Your task to perform on an android device: Do I have any events this weekend? Image 0: 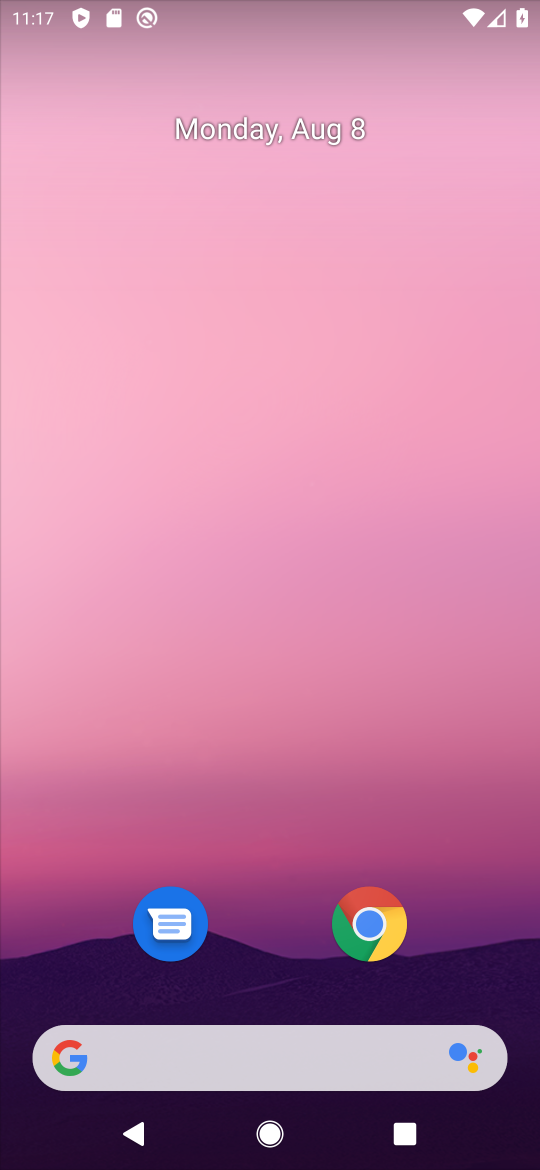
Step 0: drag from (315, 1001) to (356, 320)
Your task to perform on an android device: Do I have any events this weekend? Image 1: 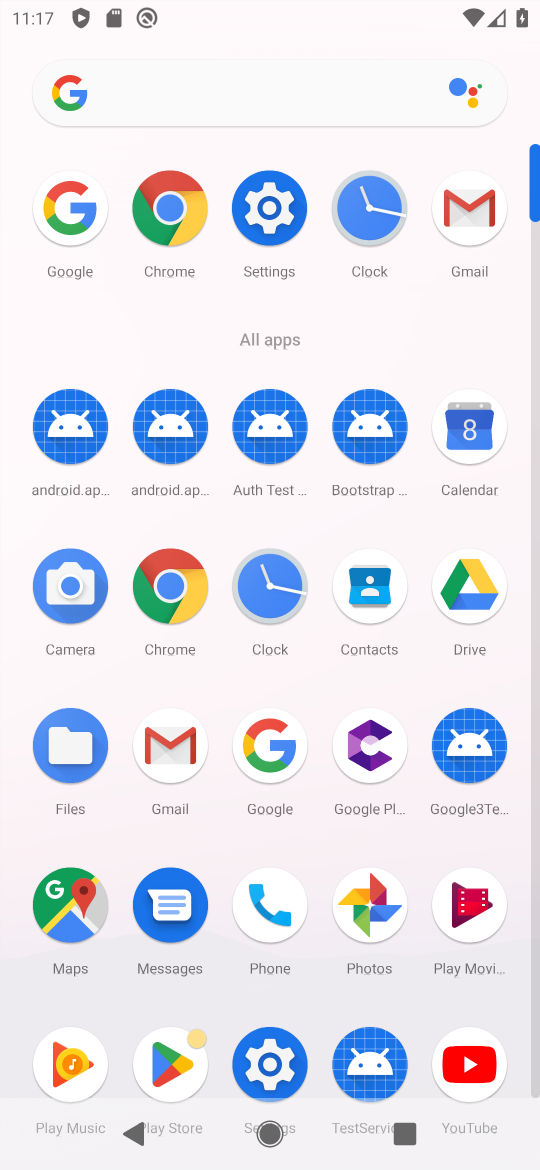
Step 1: click (474, 428)
Your task to perform on an android device: Do I have any events this weekend? Image 2: 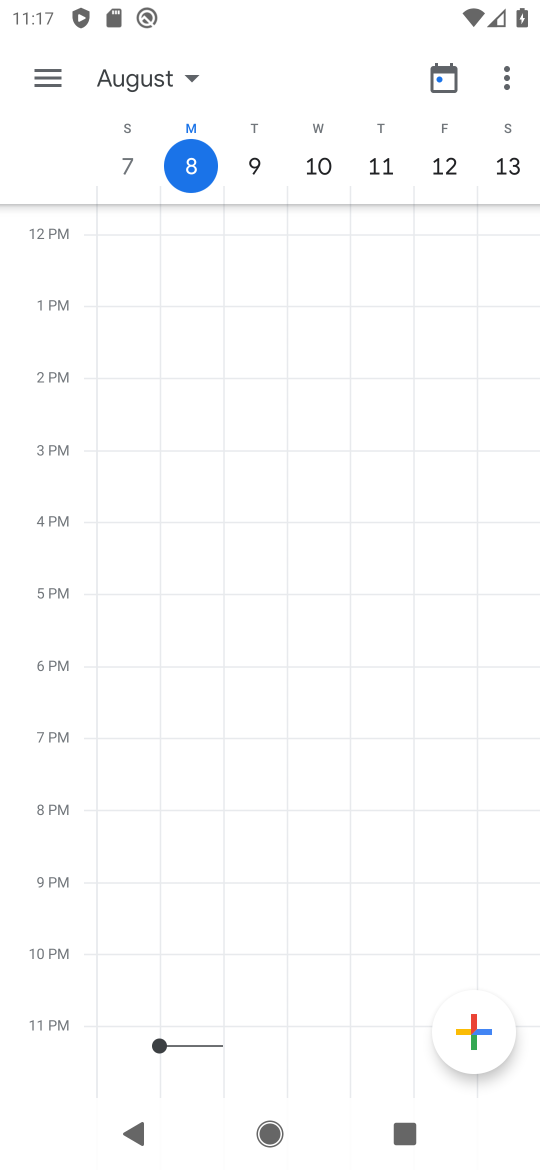
Step 2: task complete